Your task to perform on an android device: Open Google Maps Image 0: 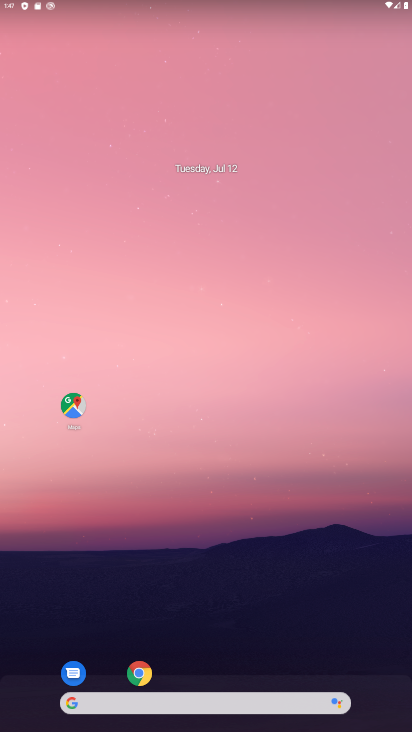
Step 0: press home button
Your task to perform on an android device: Open Google Maps Image 1: 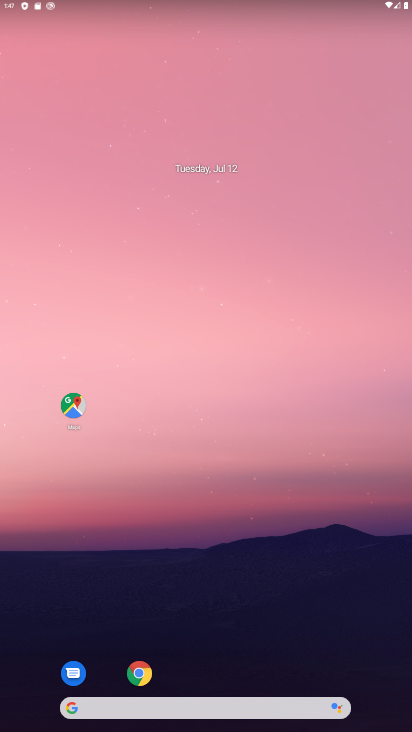
Step 1: click (73, 404)
Your task to perform on an android device: Open Google Maps Image 2: 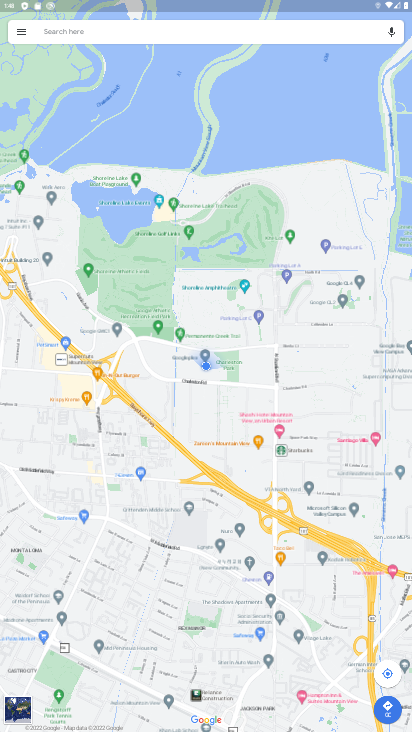
Step 2: task complete